Your task to perform on an android device: clear history in the chrome app Image 0: 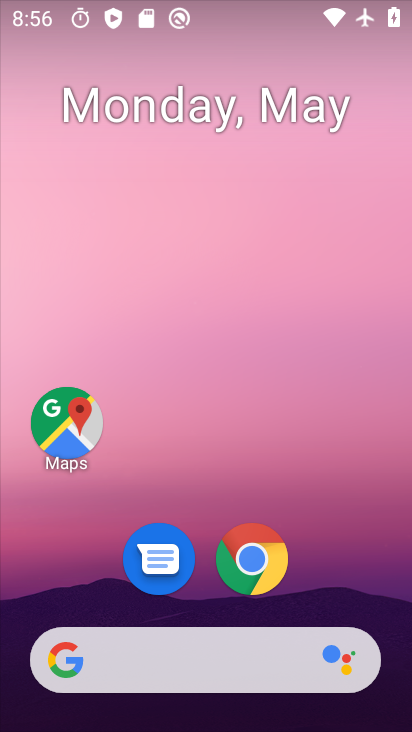
Step 0: click (257, 551)
Your task to perform on an android device: clear history in the chrome app Image 1: 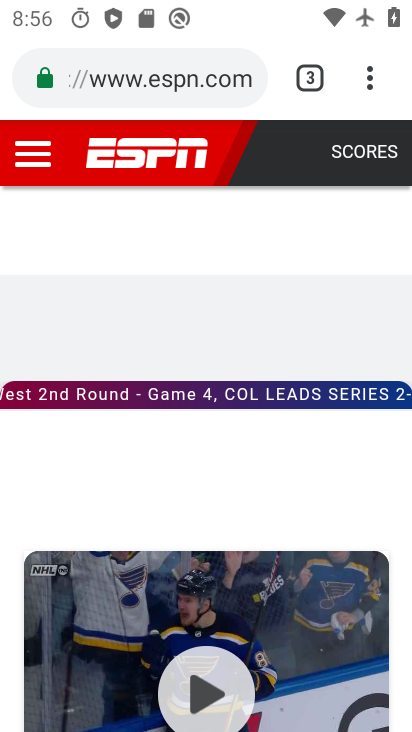
Step 1: click (368, 81)
Your task to perform on an android device: clear history in the chrome app Image 2: 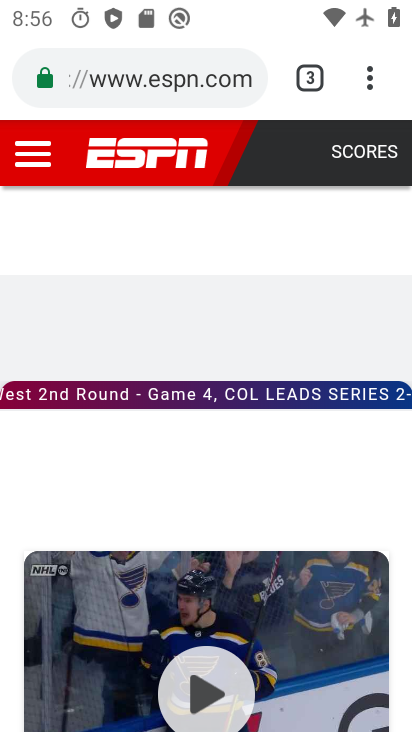
Step 2: click (374, 85)
Your task to perform on an android device: clear history in the chrome app Image 3: 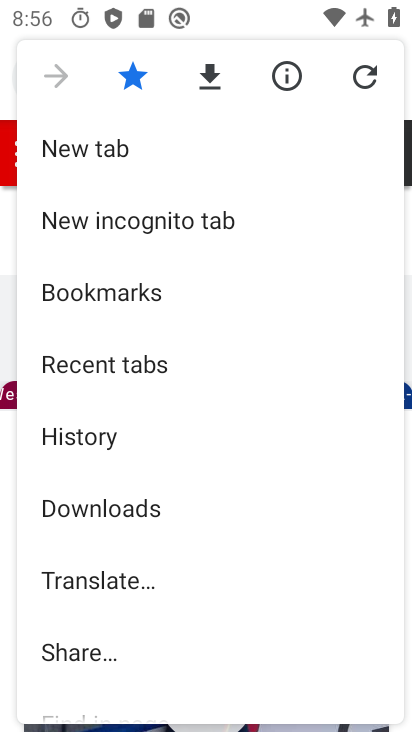
Step 3: click (121, 433)
Your task to perform on an android device: clear history in the chrome app Image 4: 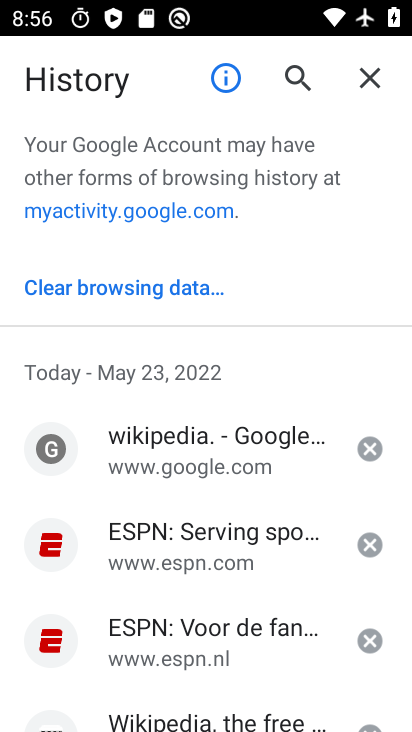
Step 4: click (120, 289)
Your task to perform on an android device: clear history in the chrome app Image 5: 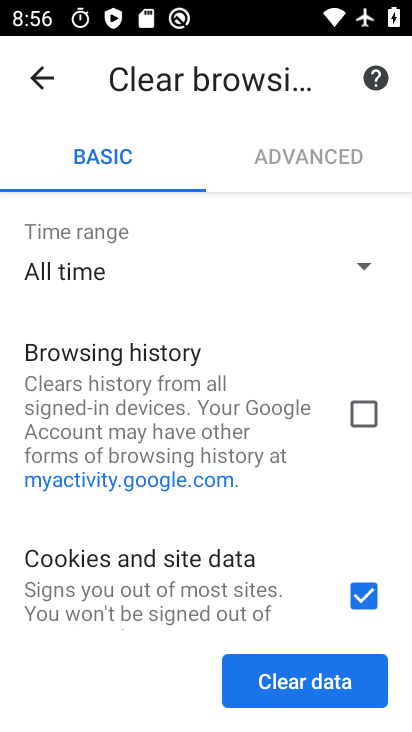
Step 5: click (257, 423)
Your task to perform on an android device: clear history in the chrome app Image 6: 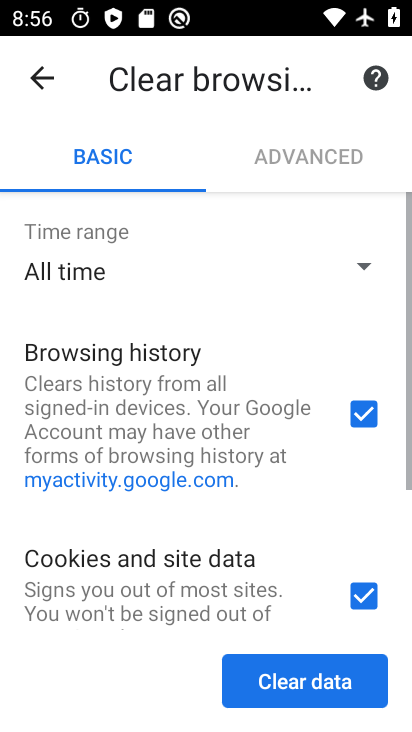
Step 6: drag from (259, 564) to (273, 125)
Your task to perform on an android device: clear history in the chrome app Image 7: 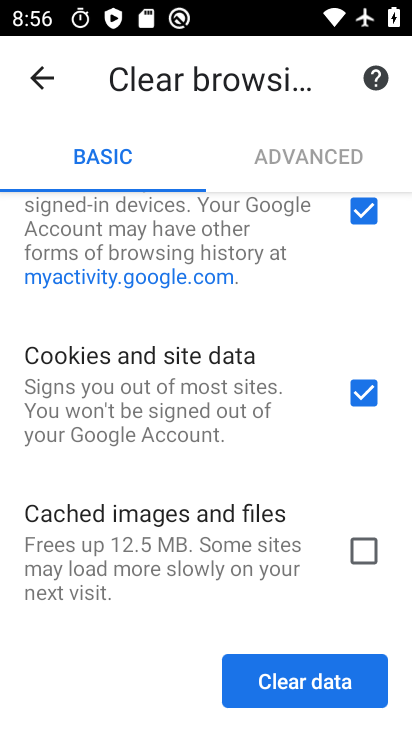
Step 7: click (347, 542)
Your task to perform on an android device: clear history in the chrome app Image 8: 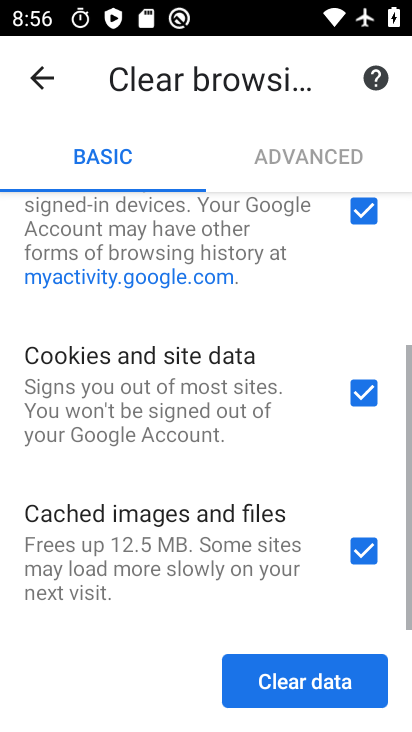
Step 8: click (304, 671)
Your task to perform on an android device: clear history in the chrome app Image 9: 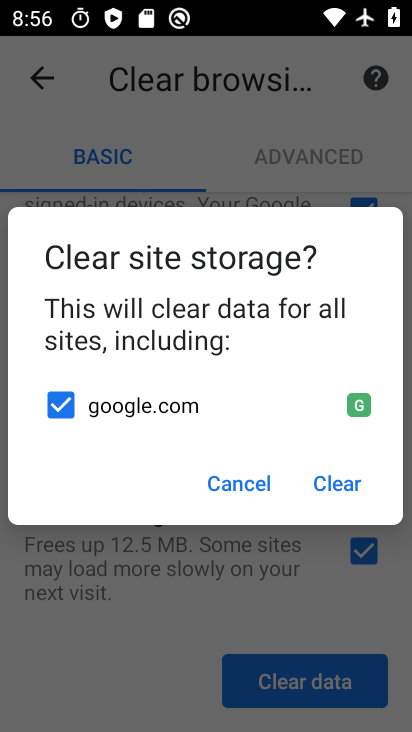
Step 9: click (318, 493)
Your task to perform on an android device: clear history in the chrome app Image 10: 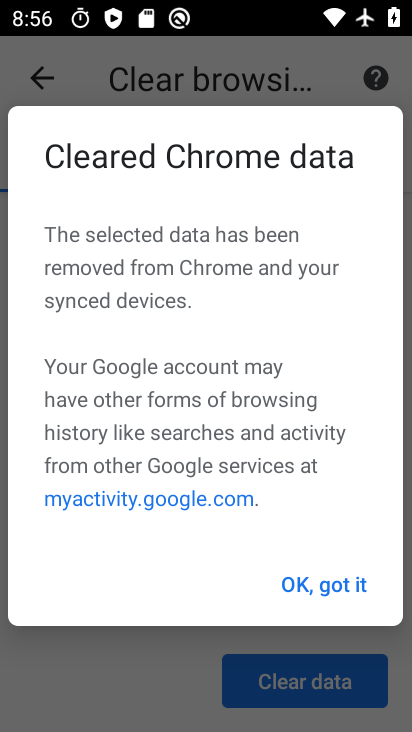
Step 10: click (318, 591)
Your task to perform on an android device: clear history in the chrome app Image 11: 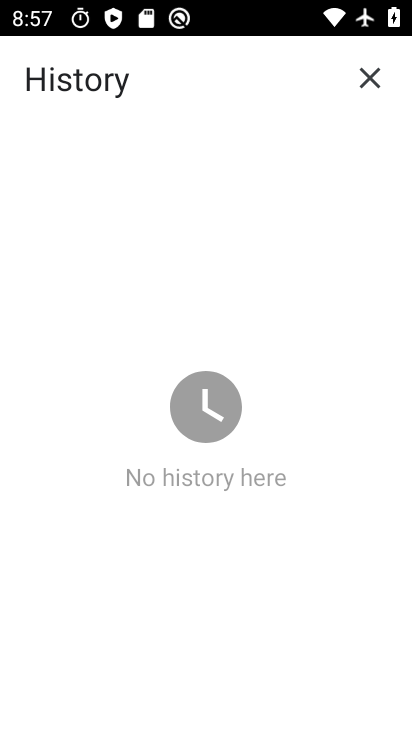
Step 11: task complete